Your task to perform on an android device: turn off improve location accuracy Image 0: 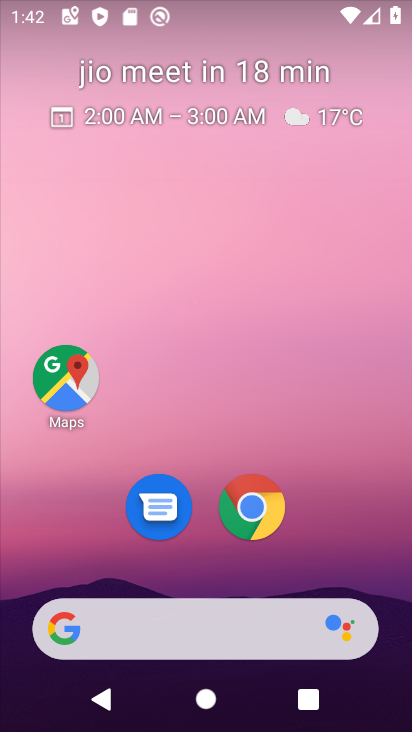
Step 0: drag from (349, 510) to (280, 17)
Your task to perform on an android device: turn off improve location accuracy Image 1: 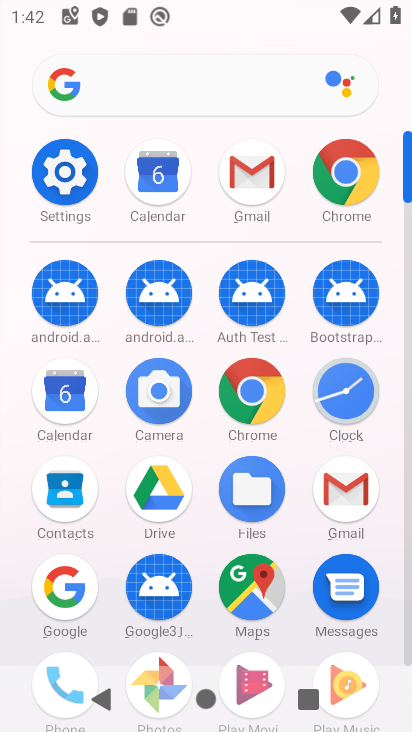
Step 1: drag from (22, 588) to (13, 257)
Your task to perform on an android device: turn off improve location accuracy Image 2: 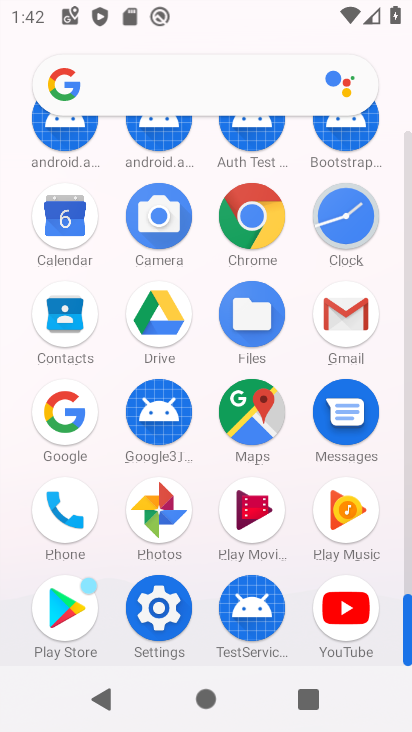
Step 2: click (160, 606)
Your task to perform on an android device: turn off improve location accuracy Image 3: 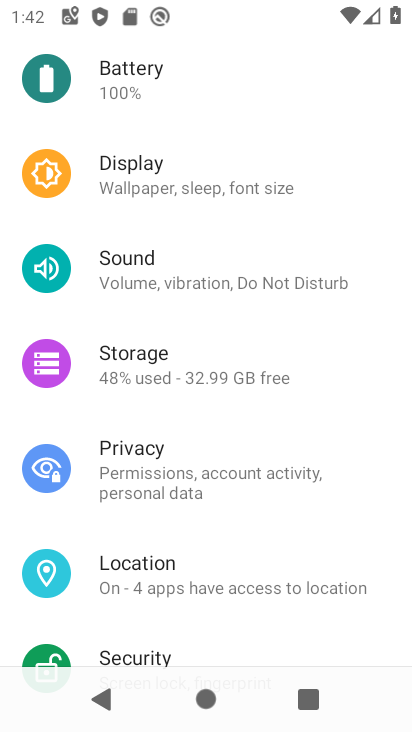
Step 3: click (166, 573)
Your task to perform on an android device: turn off improve location accuracy Image 4: 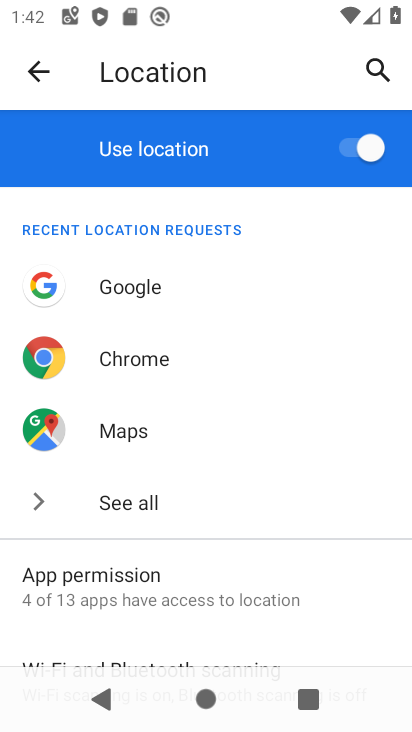
Step 4: click (351, 147)
Your task to perform on an android device: turn off improve location accuracy Image 5: 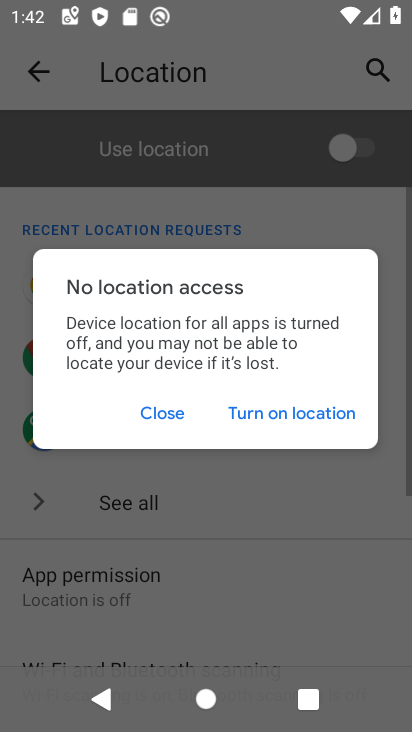
Step 5: click (351, 147)
Your task to perform on an android device: turn off improve location accuracy Image 6: 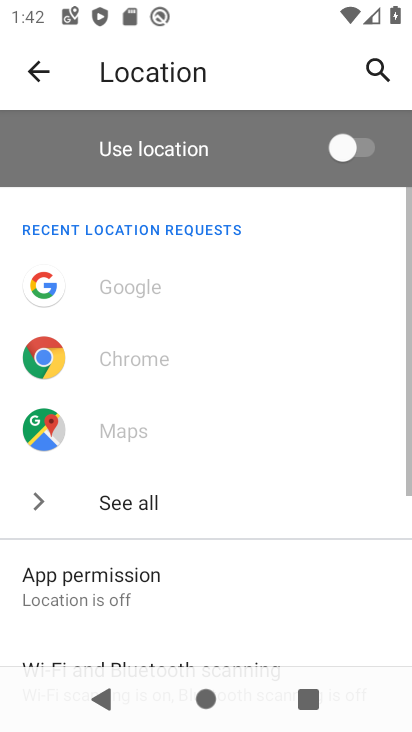
Step 6: click (351, 147)
Your task to perform on an android device: turn off improve location accuracy Image 7: 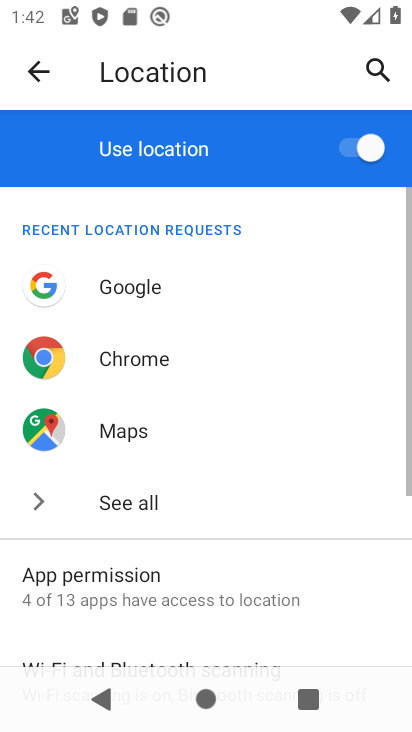
Step 7: drag from (243, 546) to (284, 188)
Your task to perform on an android device: turn off improve location accuracy Image 8: 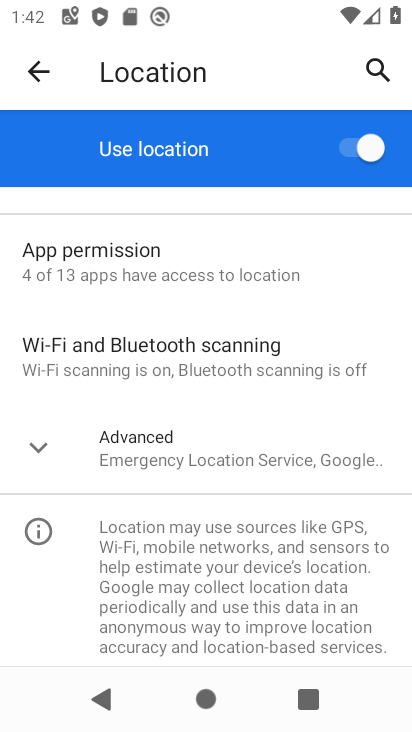
Step 8: click (218, 439)
Your task to perform on an android device: turn off improve location accuracy Image 9: 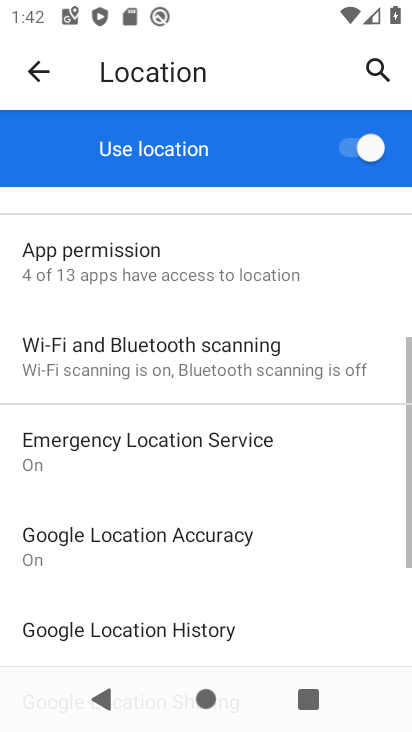
Step 9: drag from (227, 646) to (271, 309)
Your task to perform on an android device: turn off improve location accuracy Image 10: 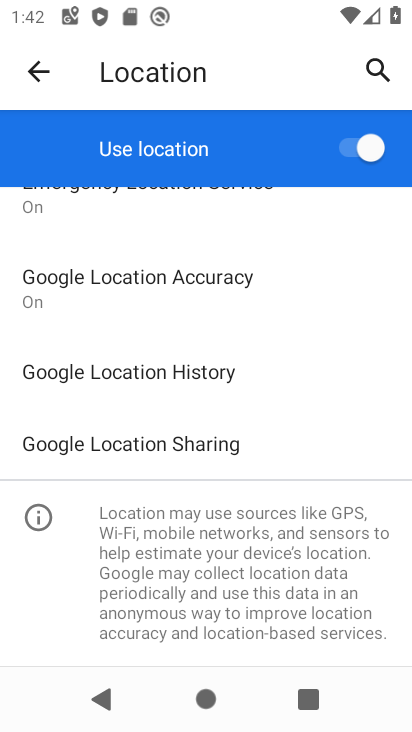
Step 10: click (222, 273)
Your task to perform on an android device: turn off improve location accuracy Image 11: 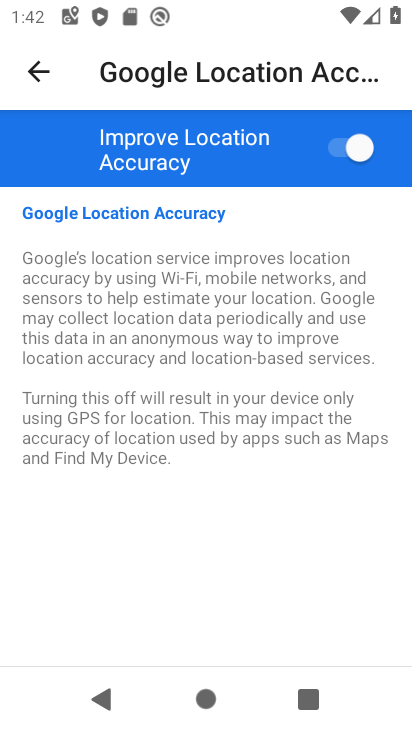
Step 11: click (322, 144)
Your task to perform on an android device: turn off improve location accuracy Image 12: 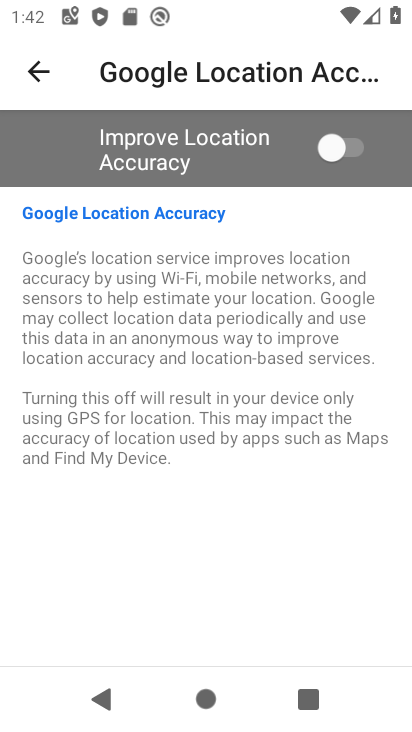
Step 12: task complete